Your task to perform on an android device: Empty the shopping cart on amazon.com. Search for "bose soundsport free" on amazon.com, select the first entry, and add it to the cart. Image 0: 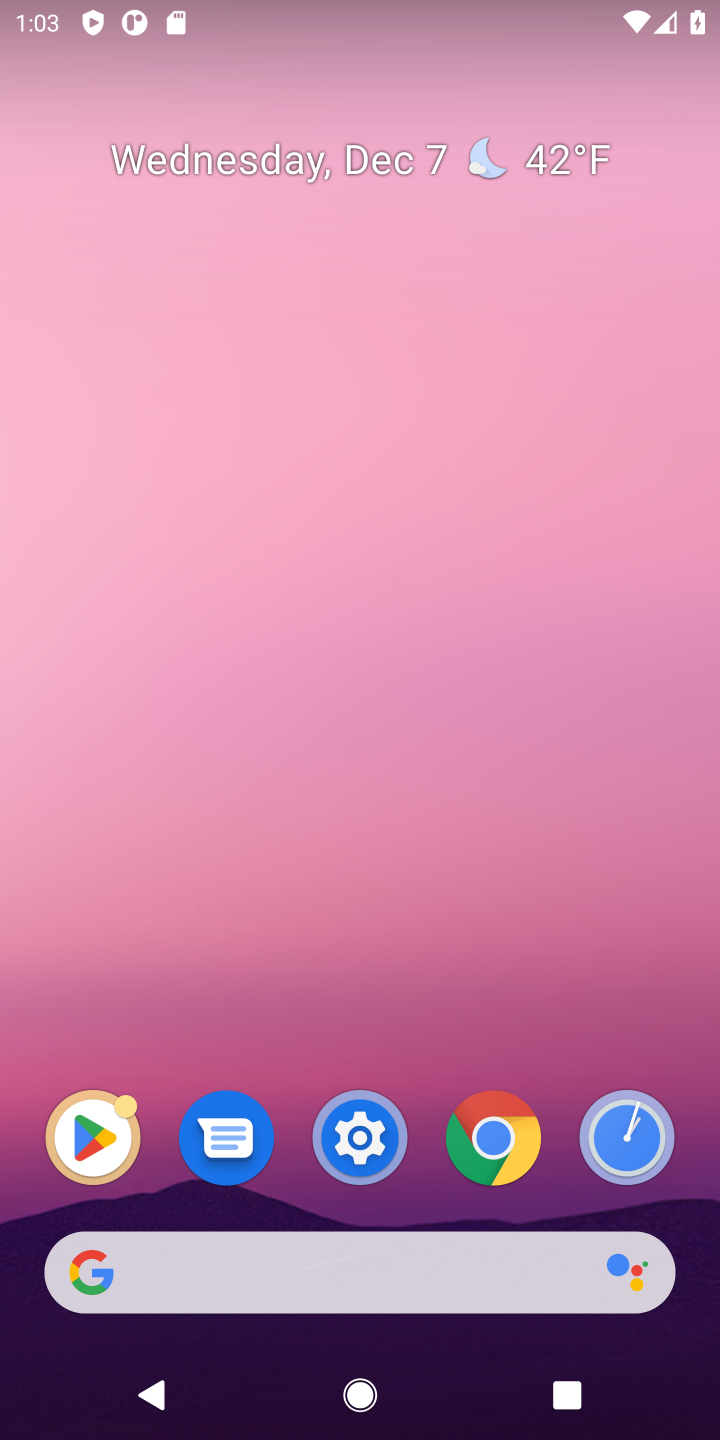
Step 0: click (220, 1265)
Your task to perform on an android device: Empty the shopping cart on amazon.com. Search for "bose soundsport free" on amazon.com, select the first entry, and add it to the cart. Image 1: 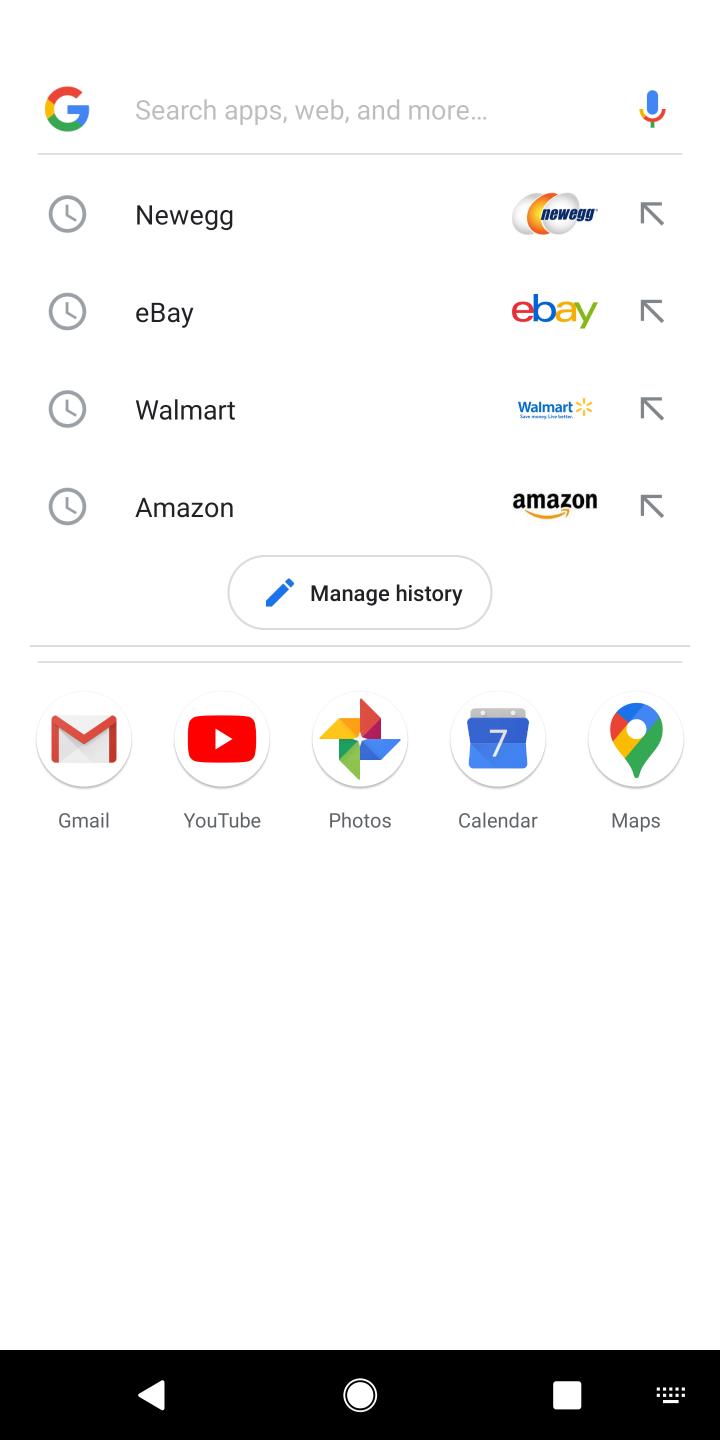
Step 1: type "amazon"
Your task to perform on an android device: Empty the shopping cart on amazon.com. Search for "bose soundsport free" on amazon.com, select the first entry, and add it to the cart. Image 2: 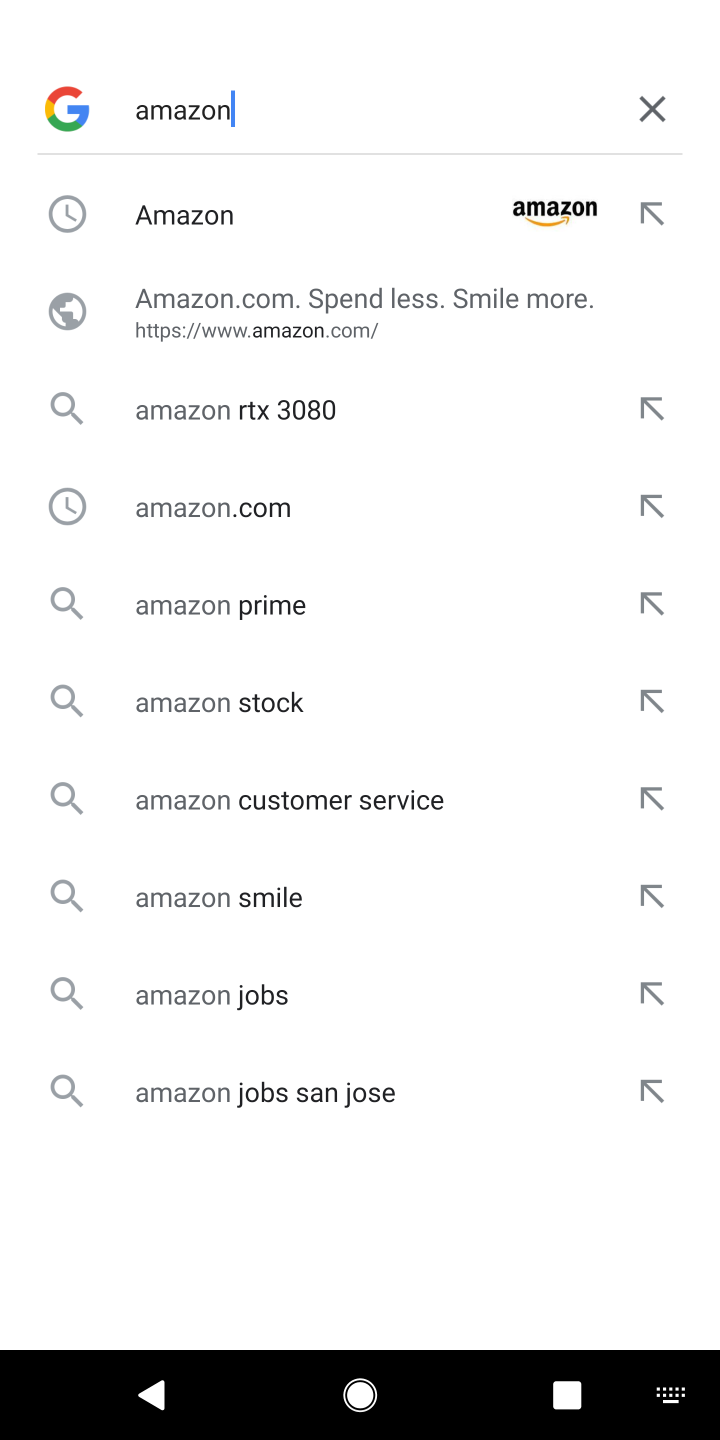
Step 2: click (278, 188)
Your task to perform on an android device: Empty the shopping cart on amazon.com. Search for "bose soundsport free" on amazon.com, select the first entry, and add it to the cart. Image 3: 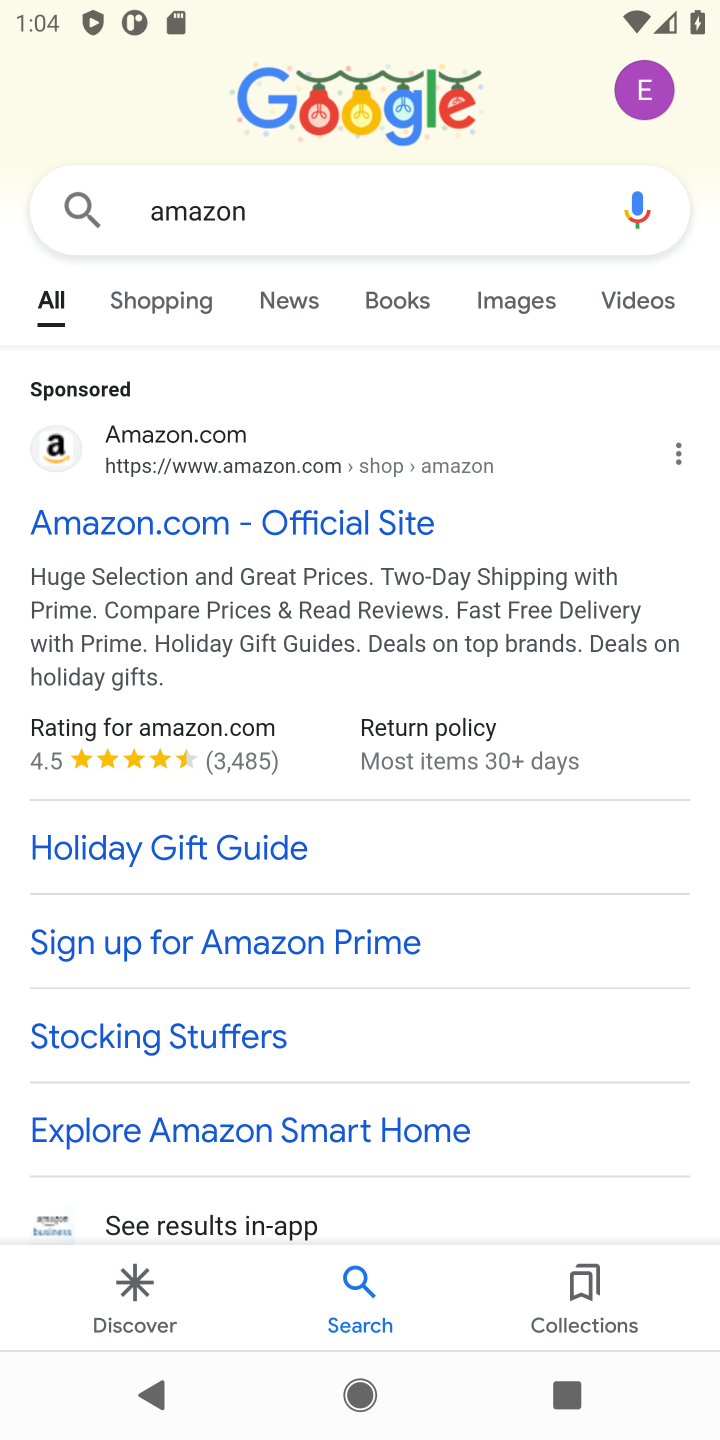
Step 3: click (189, 548)
Your task to perform on an android device: Empty the shopping cart on amazon.com. Search for "bose soundsport free" on amazon.com, select the first entry, and add it to the cart. Image 4: 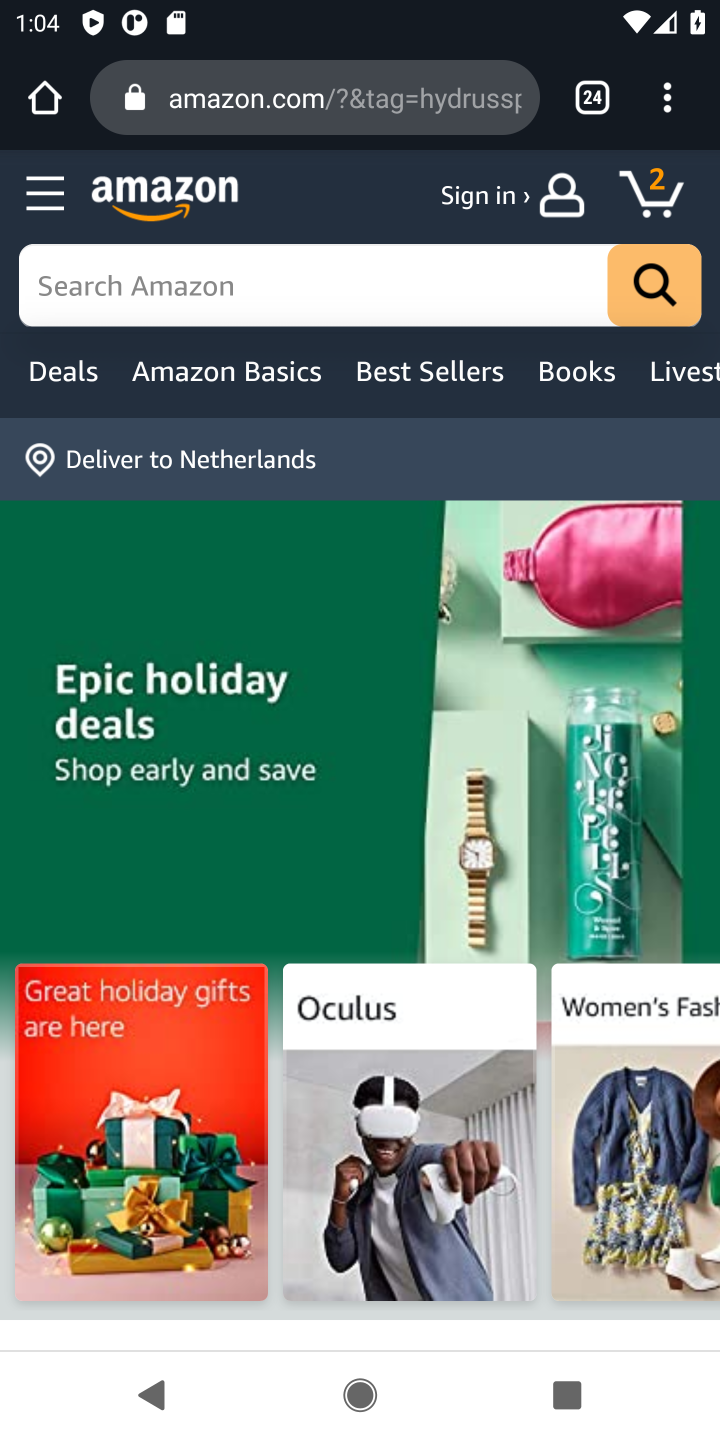
Step 4: click (112, 275)
Your task to perform on an android device: Empty the shopping cart on amazon.com. Search for "bose soundsport free" on amazon.com, select the first entry, and add it to the cart. Image 5: 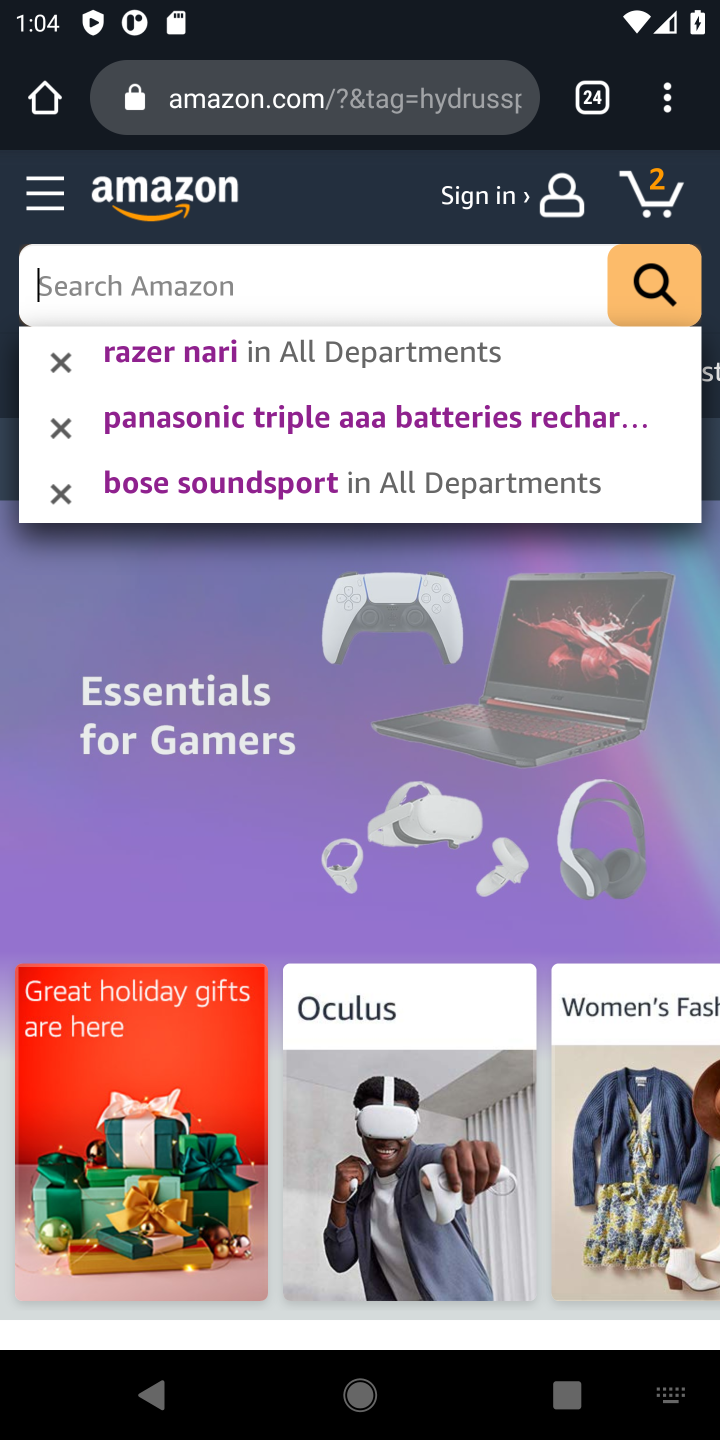
Step 5: type "bose soundsports"
Your task to perform on an android device: Empty the shopping cart on amazon.com. Search for "bose soundsport free" on amazon.com, select the first entry, and add it to the cart. Image 6: 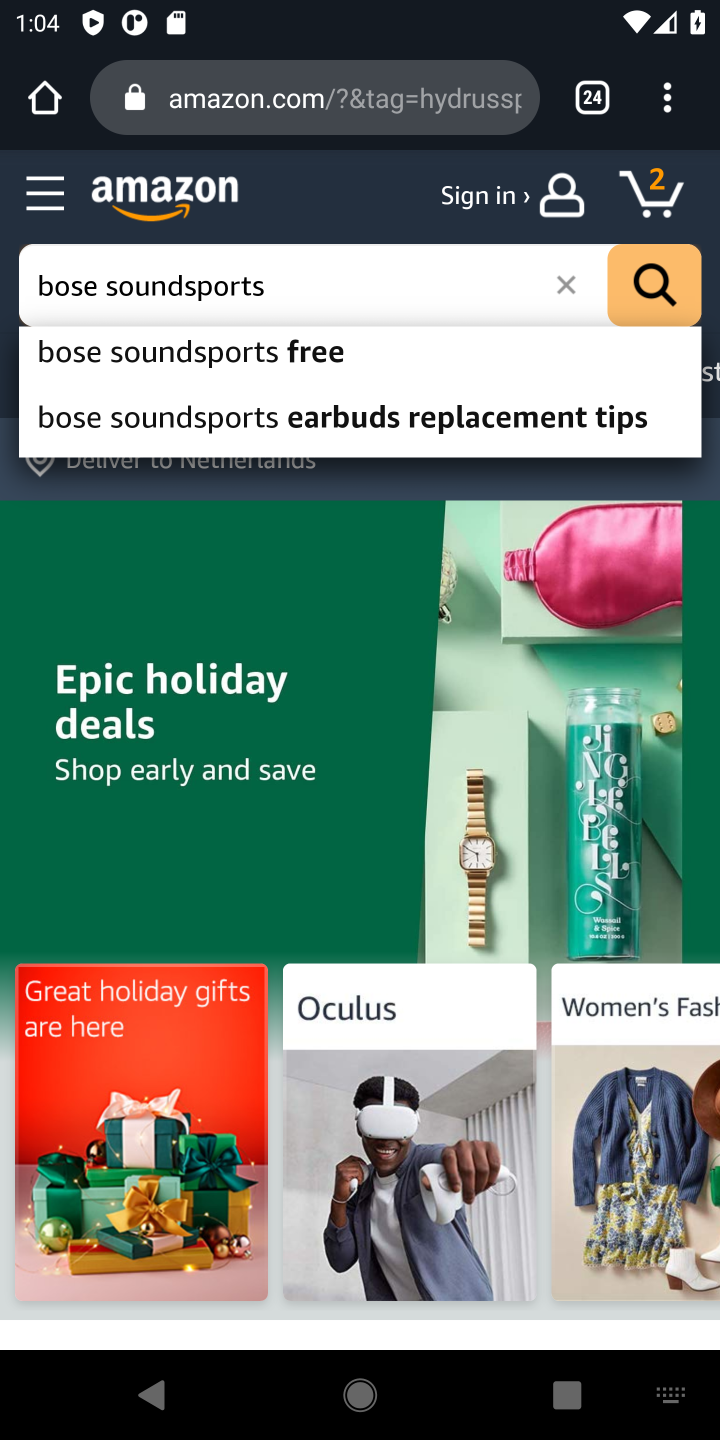
Step 6: click (647, 298)
Your task to perform on an android device: Empty the shopping cart on amazon.com. Search for "bose soundsport free" on amazon.com, select the first entry, and add it to the cart. Image 7: 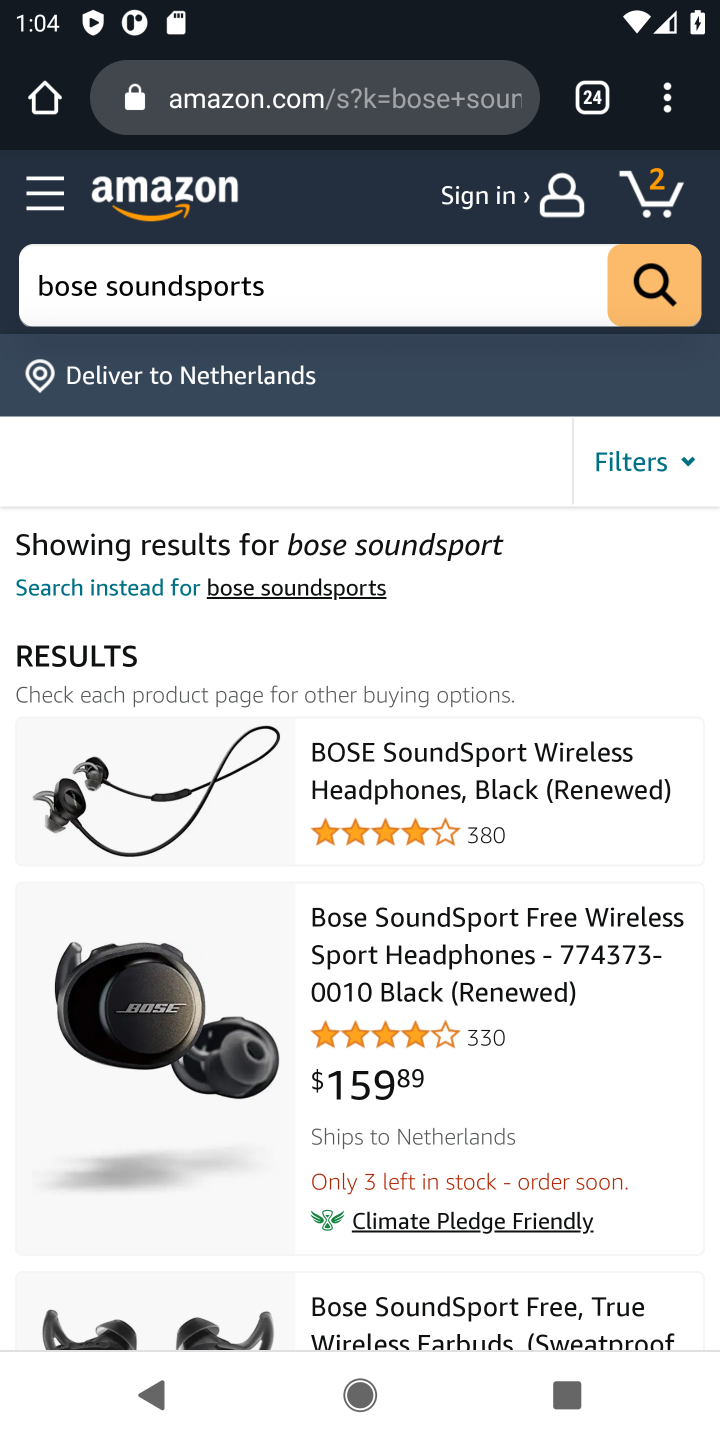
Step 7: task complete